Your task to perform on an android device: Search for seafood restaurants on Google Maps Image 0: 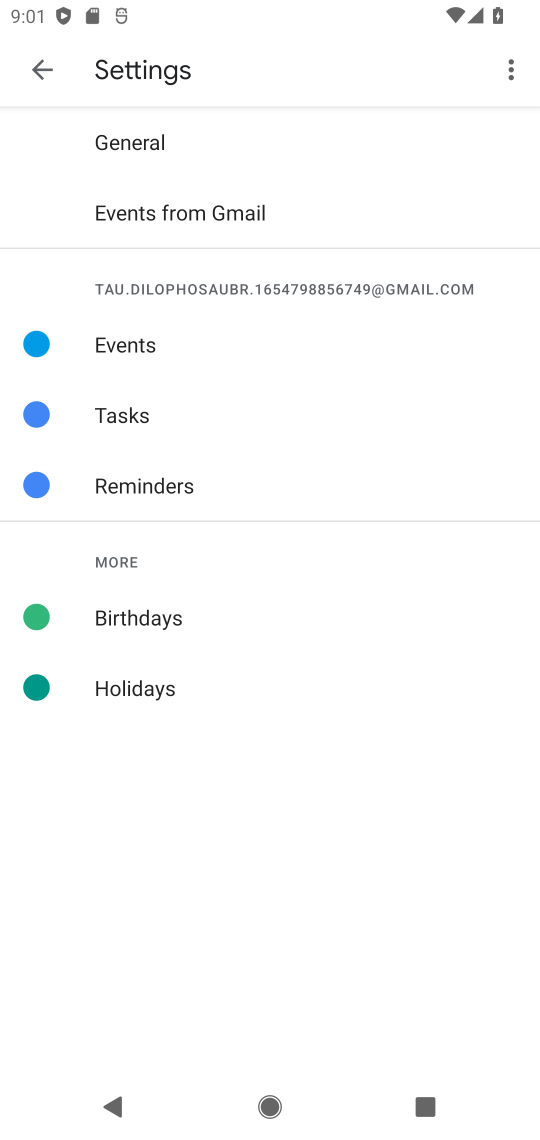
Step 0: press home button
Your task to perform on an android device: Search for seafood restaurants on Google Maps Image 1: 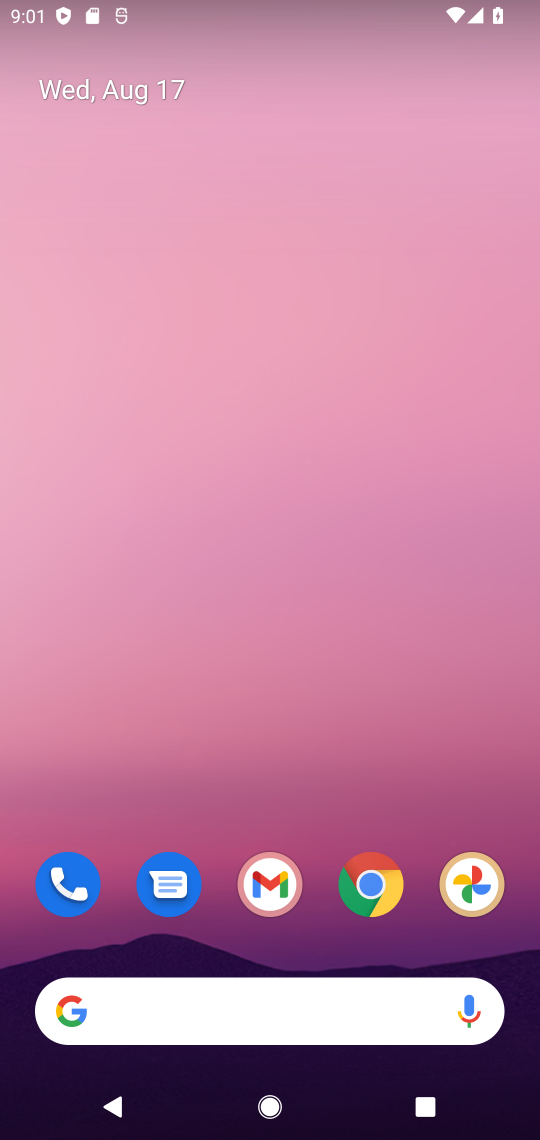
Step 1: drag from (298, 814) to (317, 168)
Your task to perform on an android device: Search for seafood restaurants on Google Maps Image 2: 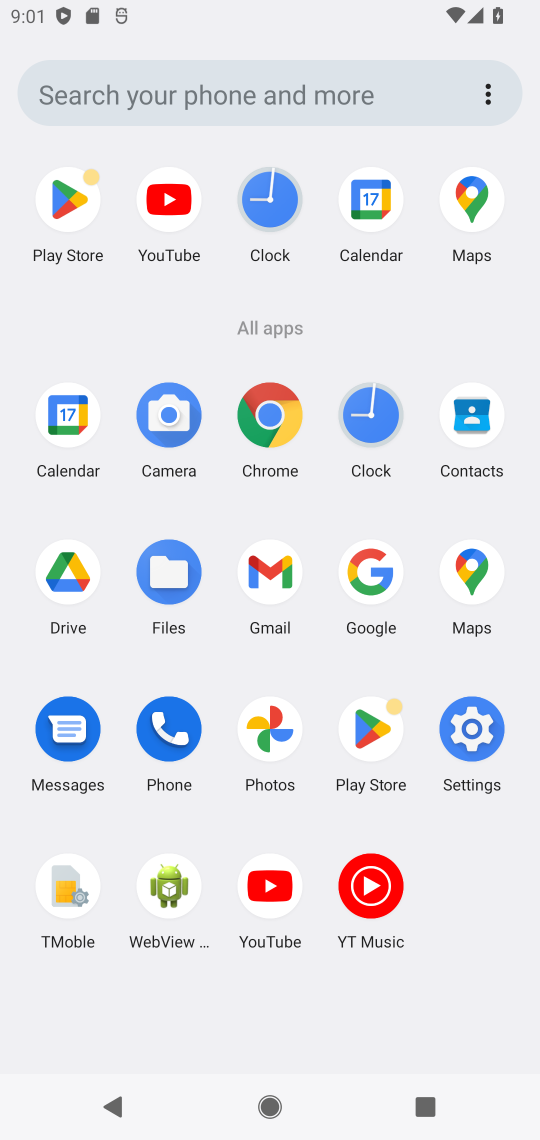
Step 2: click (485, 584)
Your task to perform on an android device: Search for seafood restaurants on Google Maps Image 3: 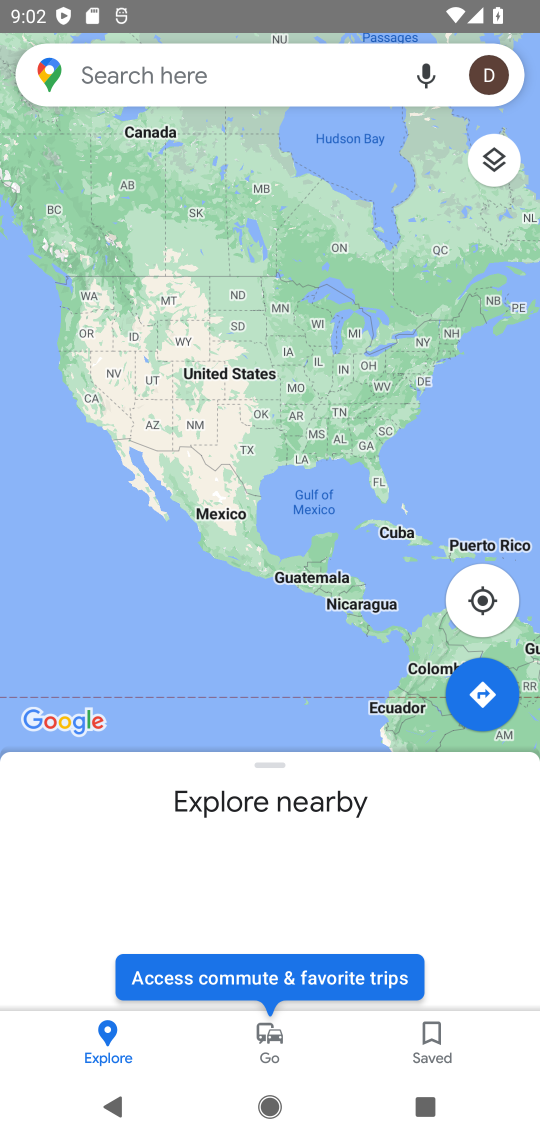
Step 3: click (227, 58)
Your task to perform on an android device: Search for seafood restaurants on Google Maps Image 4: 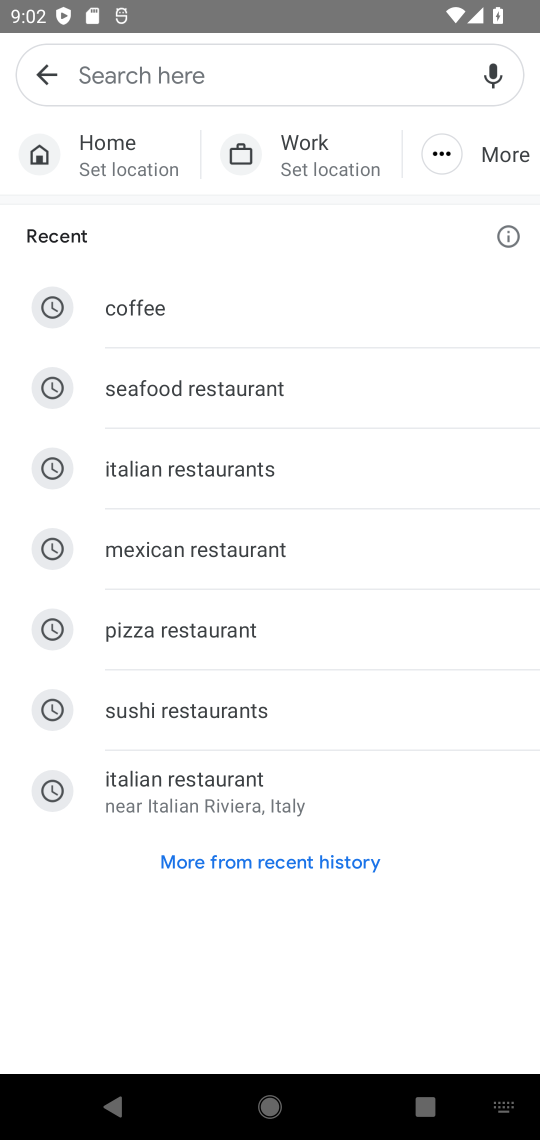
Step 4: click (275, 390)
Your task to perform on an android device: Search for seafood restaurants on Google Maps Image 5: 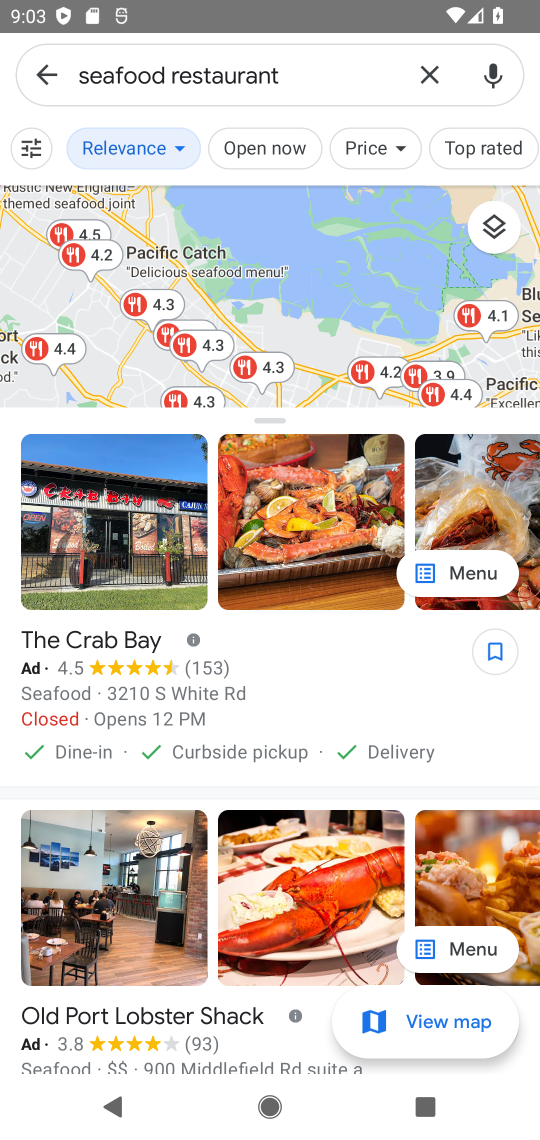
Step 5: task complete